Your task to perform on an android device: Is it going to rain tomorrow? Image 0: 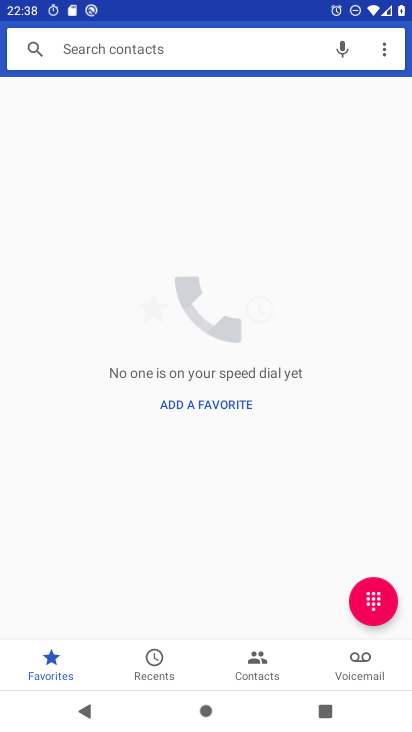
Step 0: press home button
Your task to perform on an android device: Is it going to rain tomorrow? Image 1: 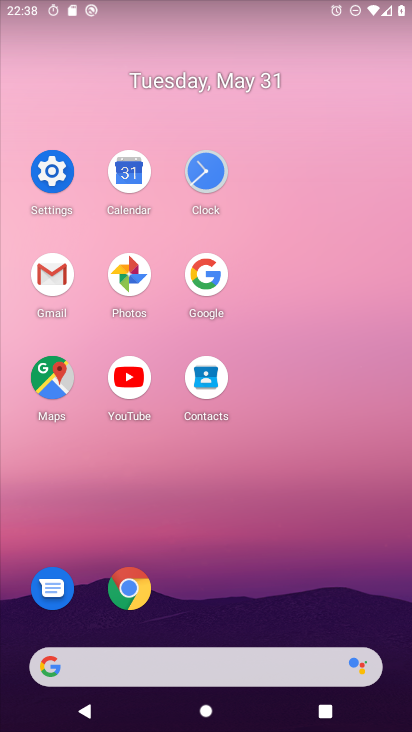
Step 1: click (212, 279)
Your task to perform on an android device: Is it going to rain tomorrow? Image 2: 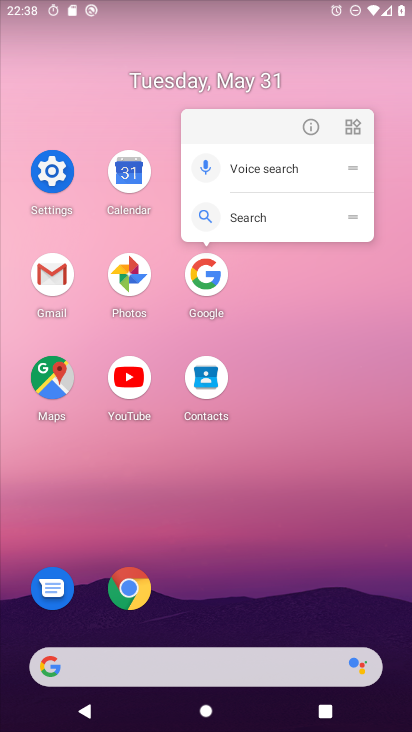
Step 2: click (212, 279)
Your task to perform on an android device: Is it going to rain tomorrow? Image 3: 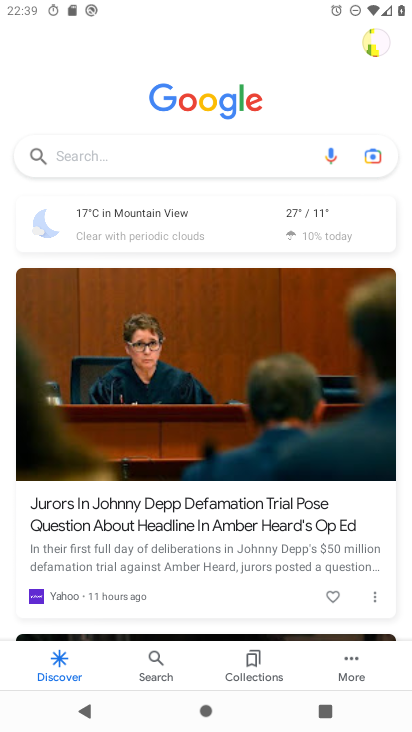
Step 3: click (138, 214)
Your task to perform on an android device: Is it going to rain tomorrow? Image 4: 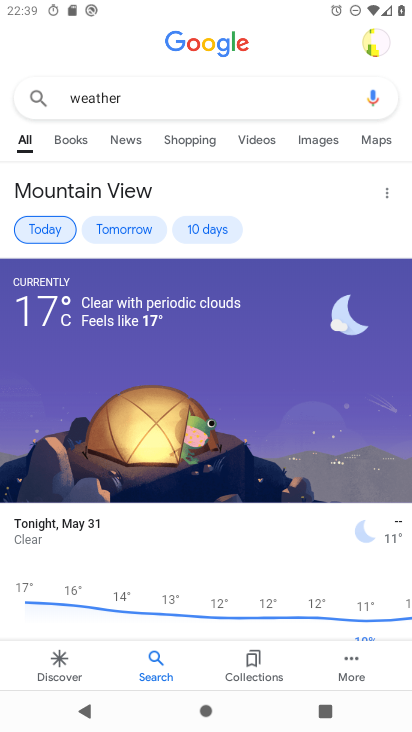
Step 4: click (112, 231)
Your task to perform on an android device: Is it going to rain tomorrow? Image 5: 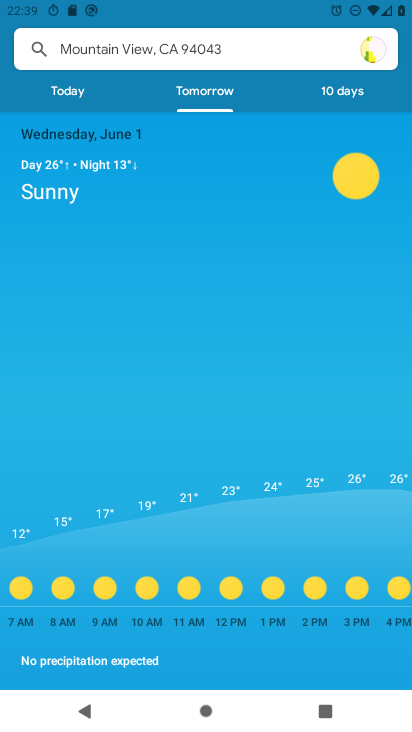
Step 5: task complete